Your task to perform on an android device: Open Google Chrome Image 0: 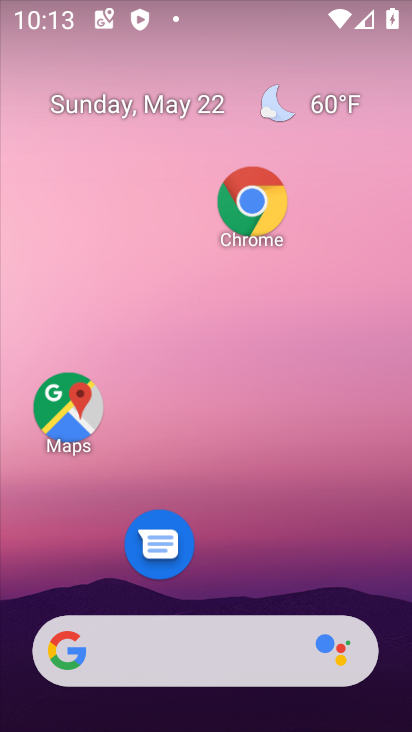
Step 0: click (254, 205)
Your task to perform on an android device: Open Google Chrome Image 1: 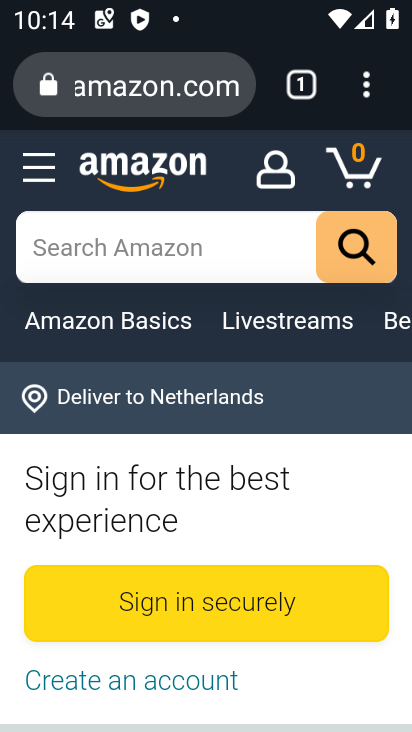
Step 1: task complete